Your task to perform on an android device: uninstall "Pandora - Music & Podcasts" Image 0: 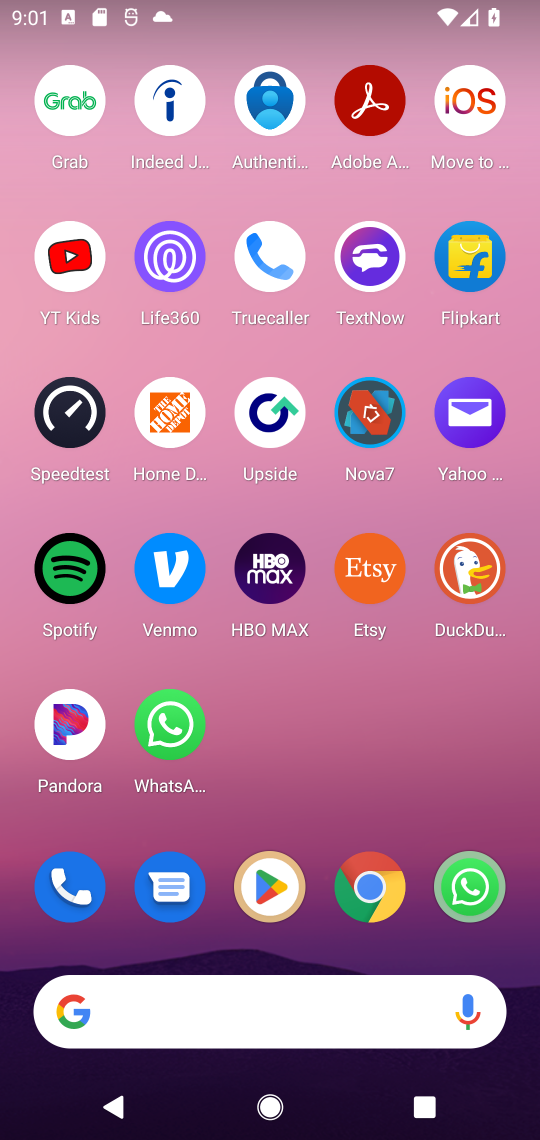
Step 0: click (275, 892)
Your task to perform on an android device: uninstall "Pandora - Music & Podcasts" Image 1: 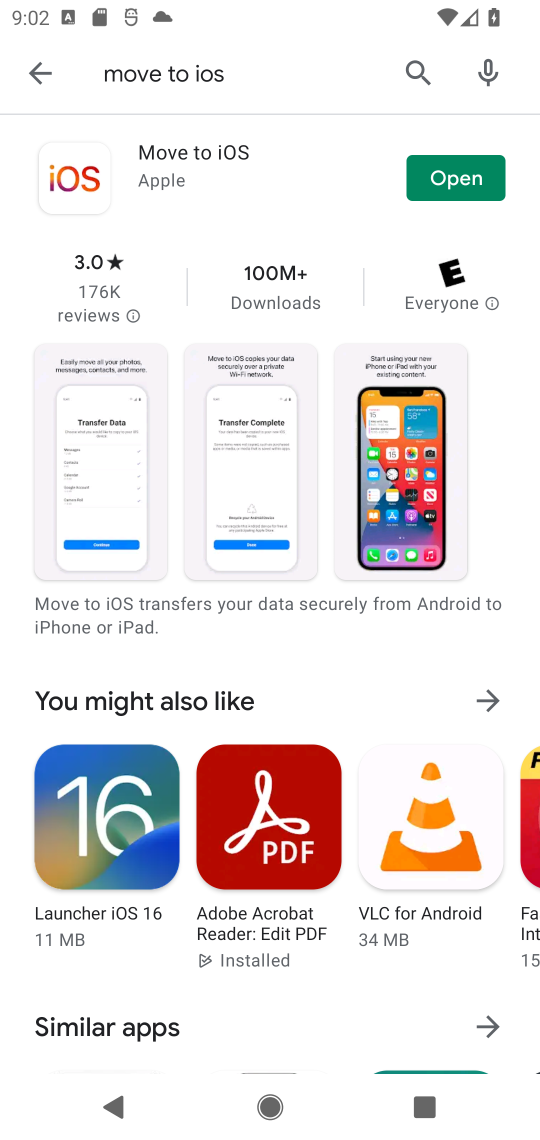
Step 1: click (416, 61)
Your task to perform on an android device: uninstall "Pandora - Music & Podcasts" Image 2: 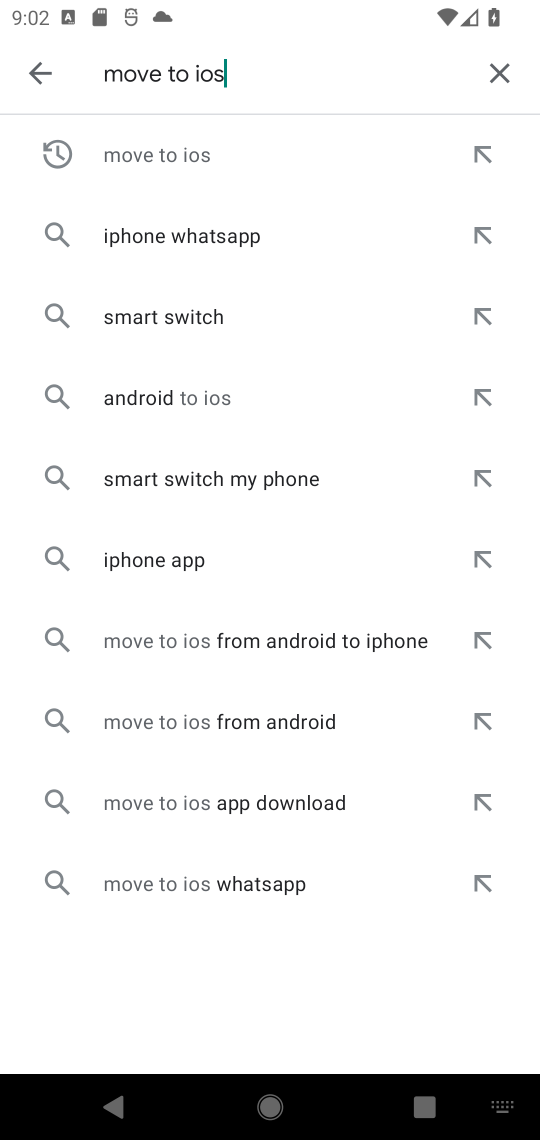
Step 2: click (498, 78)
Your task to perform on an android device: uninstall "Pandora - Music & Podcasts" Image 3: 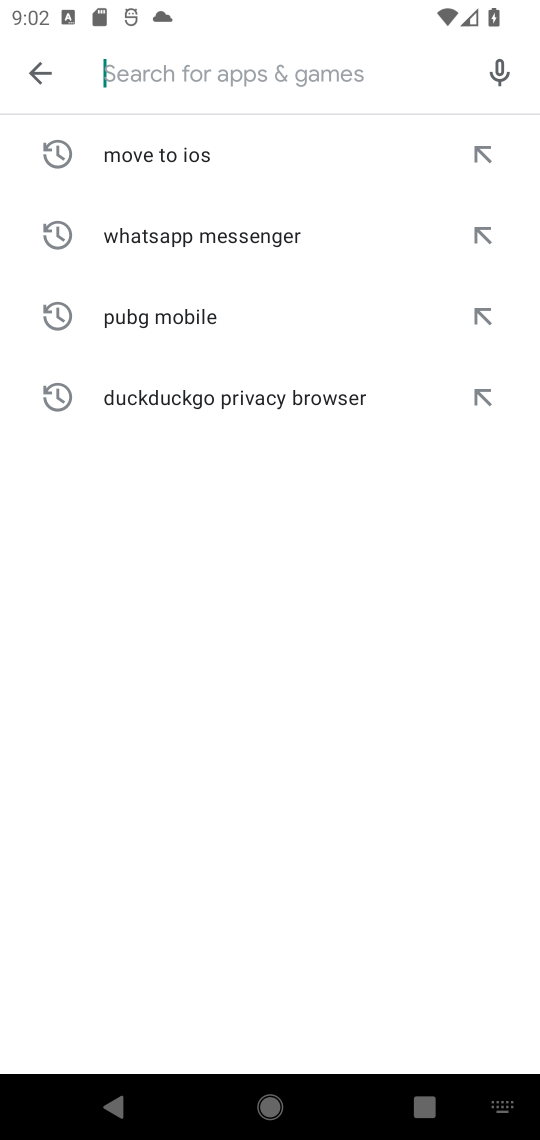
Step 3: type "Pandora - Music & Podcasts"
Your task to perform on an android device: uninstall "Pandora - Music & Podcasts" Image 4: 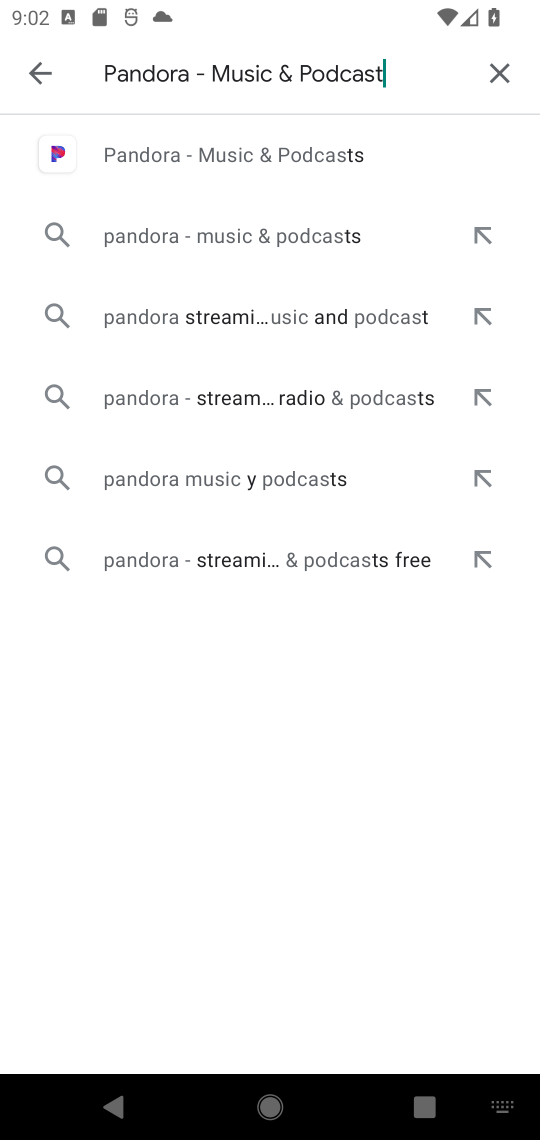
Step 4: type ""
Your task to perform on an android device: uninstall "Pandora - Music & Podcasts" Image 5: 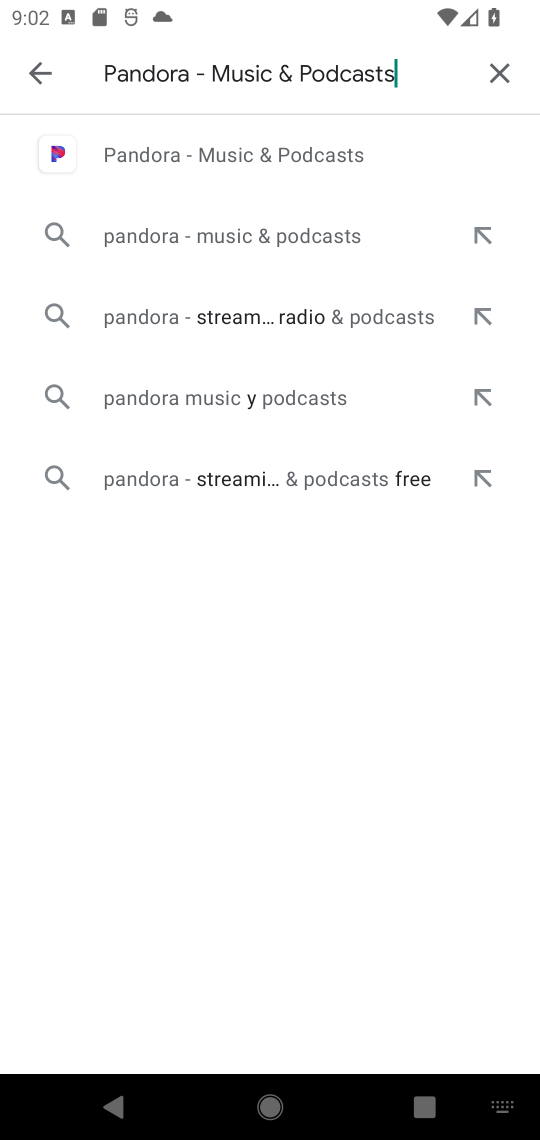
Step 5: click (151, 153)
Your task to perform on an android device: uninstall "Pandora - Music & Podcasts" Image 6: 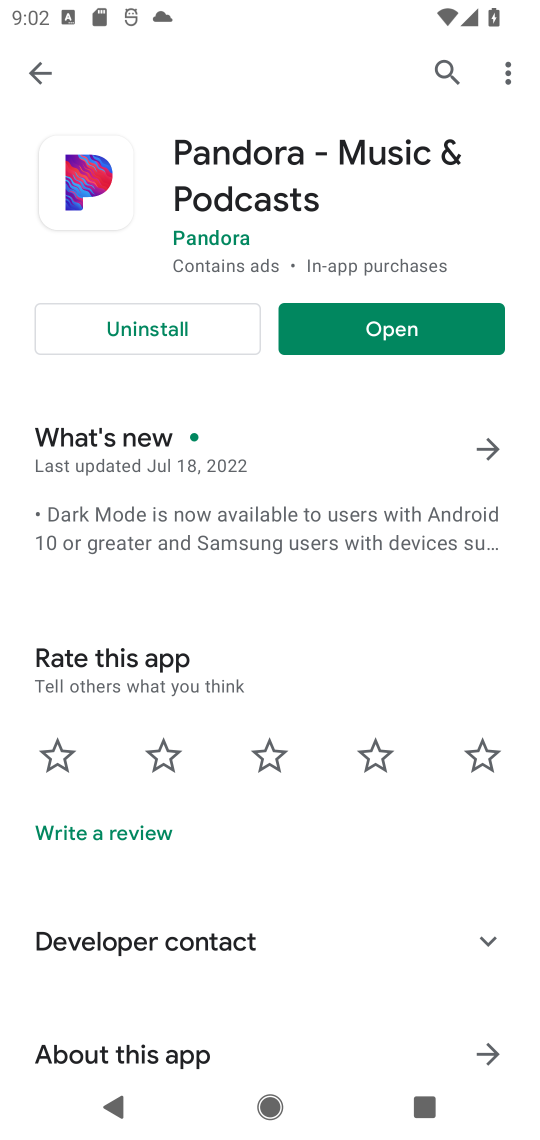
Step 6: click (147, 326)
Your task to perform on an android device: uninstall "Pandora - Music & Podcasts" Image 7: 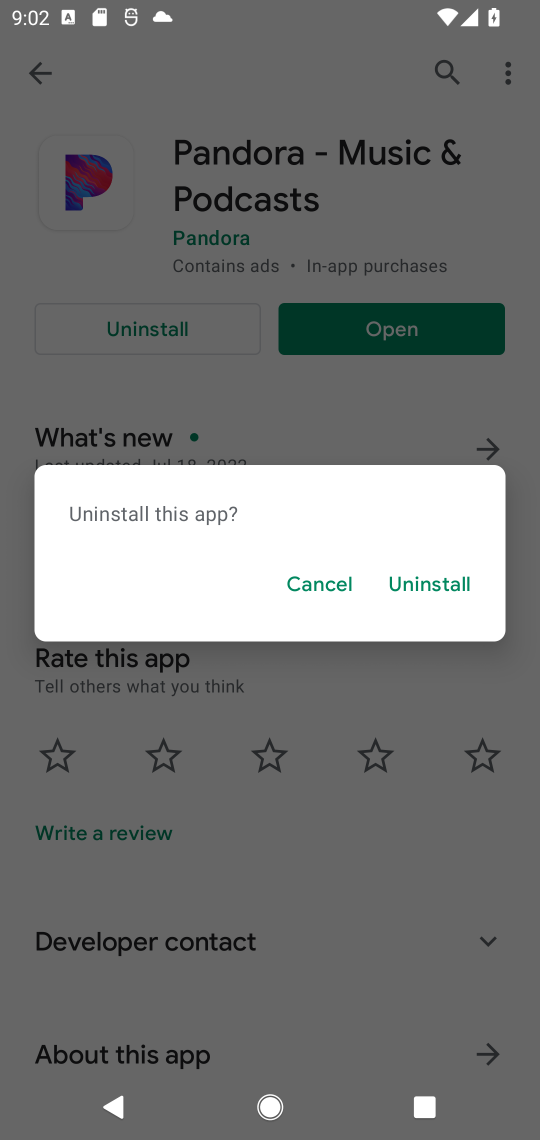
Step 7: click (441, 584)
Your task to perform on an android device: uninstall "Pandora - Music & Podcasts" Image 8: 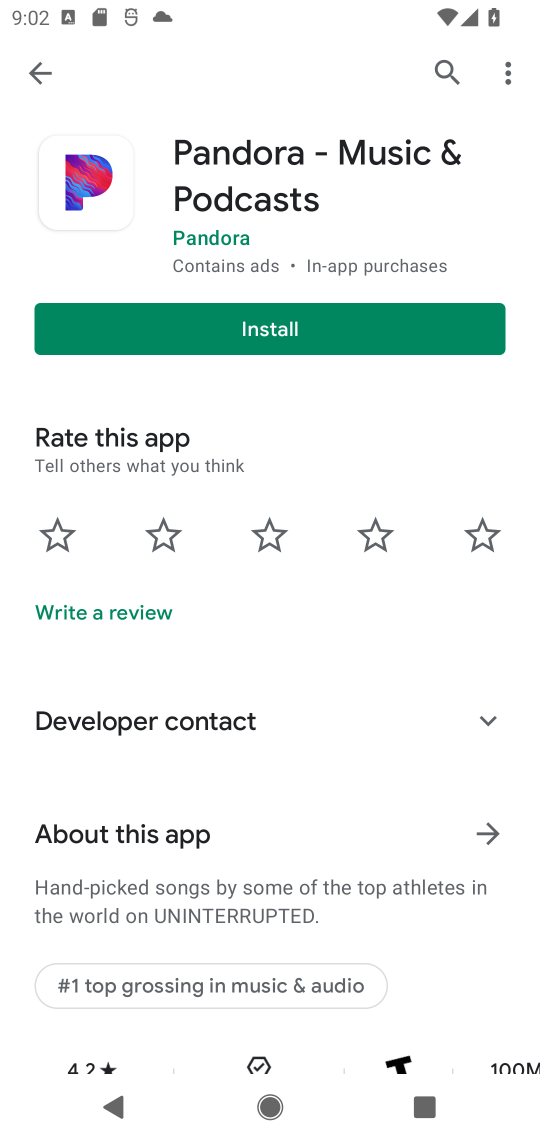
Step 8: task complete